Your task to perform on an android device: What's the weather today? Image 0: 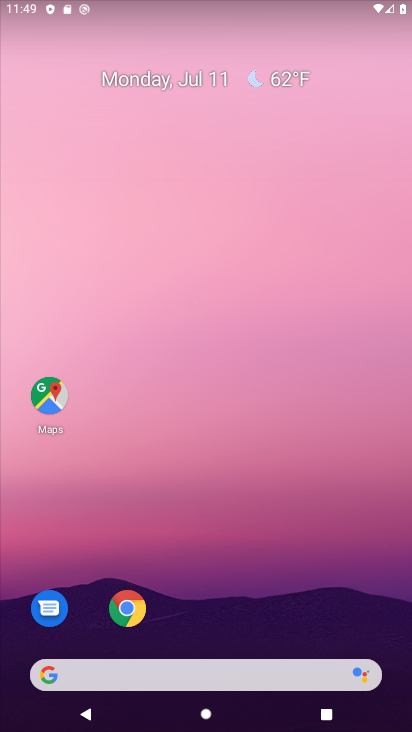
Step 0: drag from (269, 618) to (286, 26)
Your task to perform on an android device: What's the weather today? Image 1: 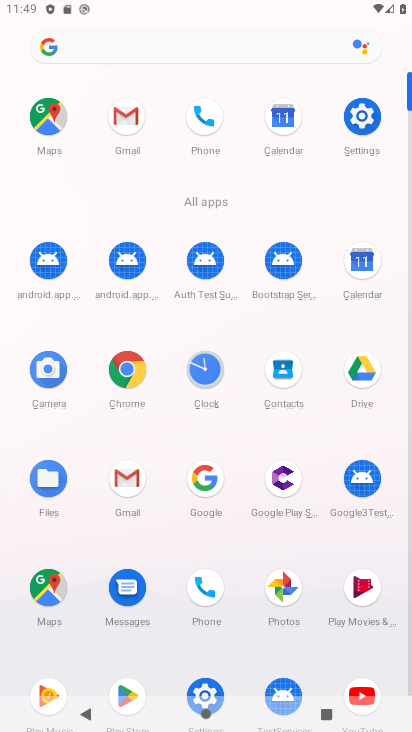
Step 1: click (190, 474)
Your task to perform on an android device: What's the weather today? Image 2: 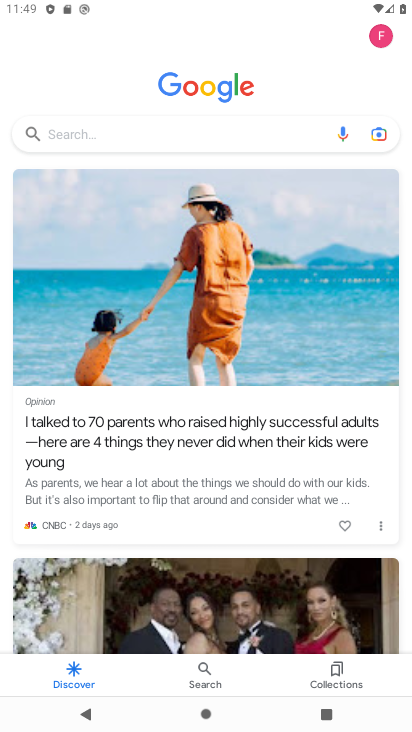
Step 2: click (387, 35)
Your task to perform on an android device: What's the weather today? Image 3: 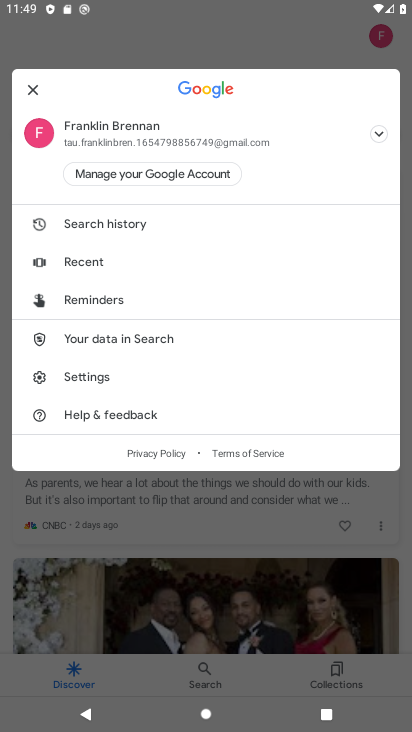
Step 3: click (58, 378)
Your task to perform on an android device: What's the weather today? Image 4: 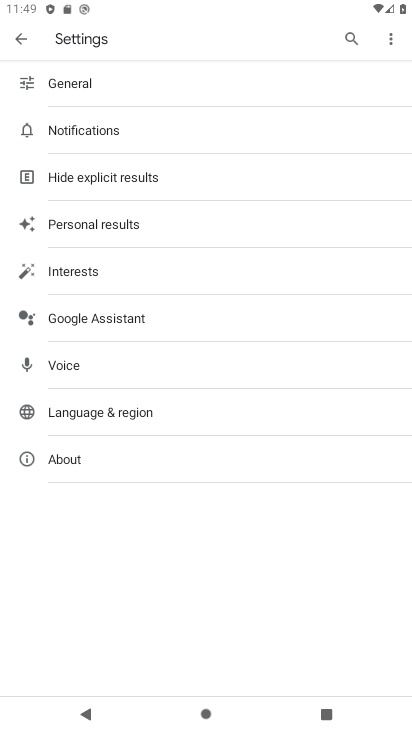
Step 4: click (25, 35)
Your task to perform on an android device: What's the weather today? Image 5: 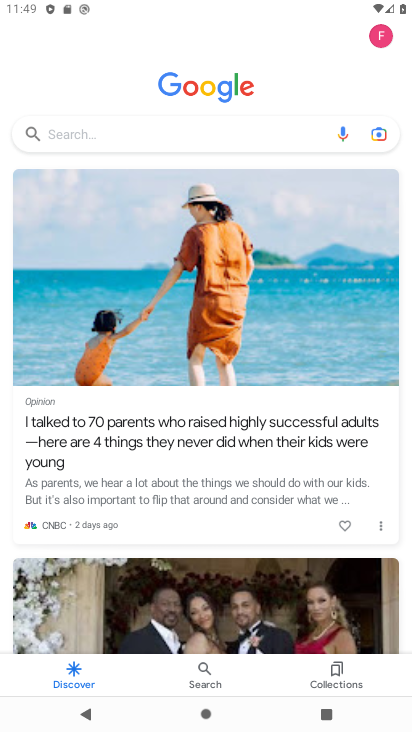
Step 5: drag from (159, 573) to (205, 88)
Your task to perform on an android device: What's the weather today? Image 6: 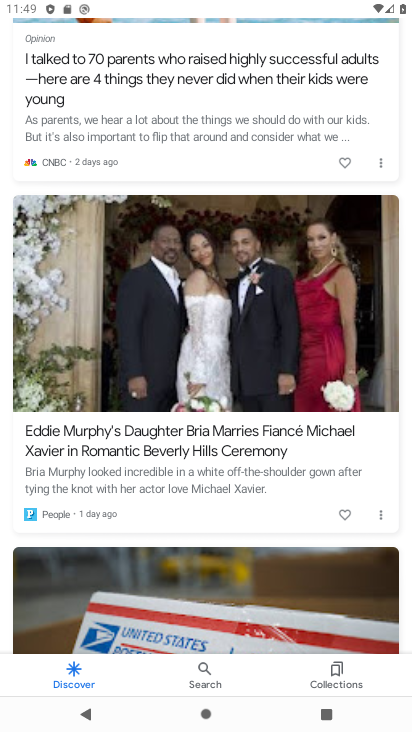
Step 6: drag from (205, 155) to (268, 687)
Your task to perform on an android device: What's the weather today? Image 7: 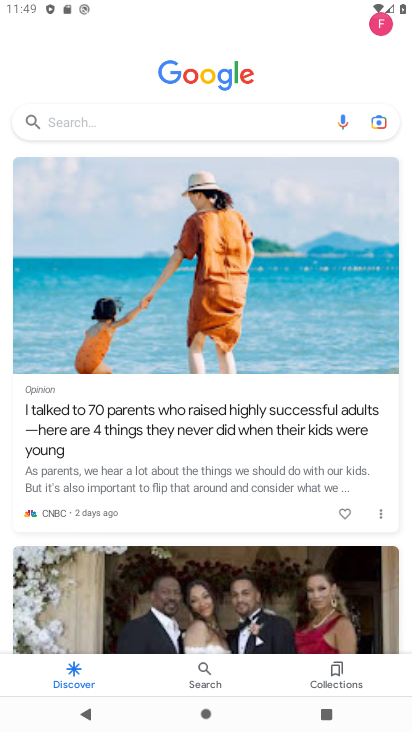
Step 7: click (203, 109)
Your task to perform on an android device: What's the weather today? Image 8: 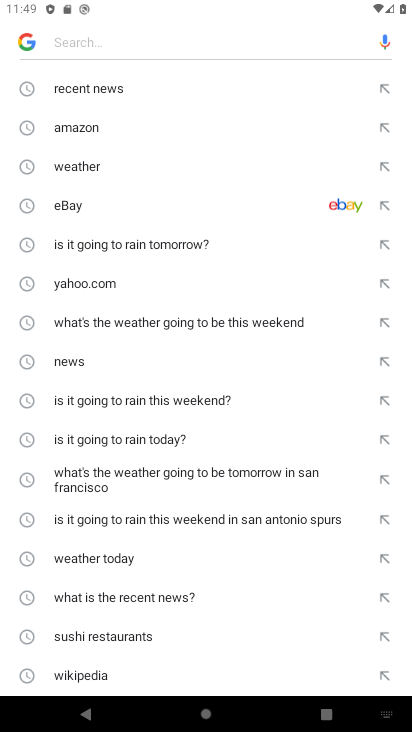
Step 8: click (95, 168)
Your task to perform on an android device: What's the weather today? Image 9: 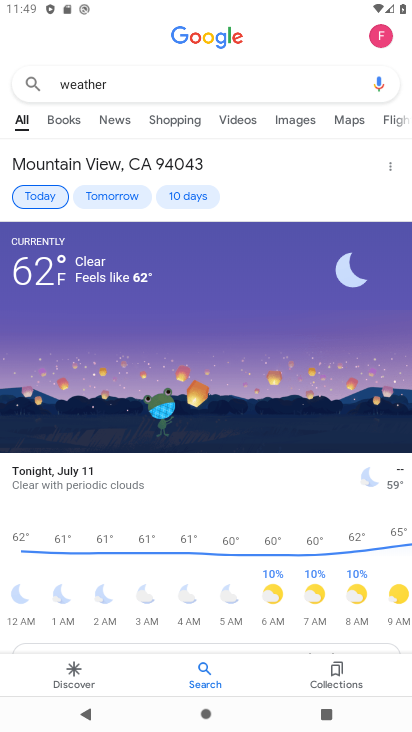
Step 9: task complete